Your task to perform on an android device: toggle notifications settings in the gmail app Image 0: 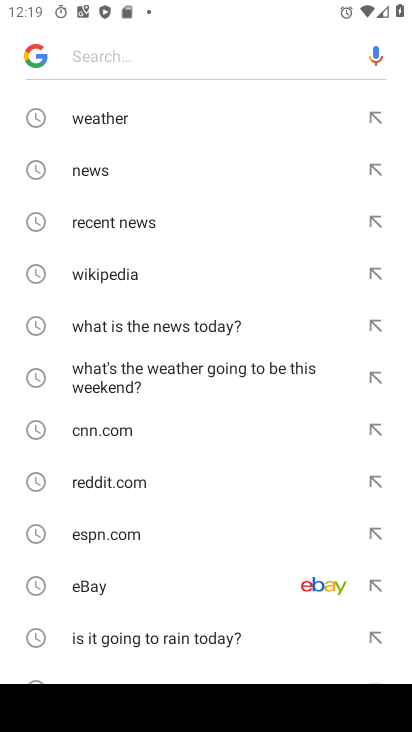
Step 0: press home button
Your task to perform on an android device: toggle notifications settings in the gmail app Image 1: 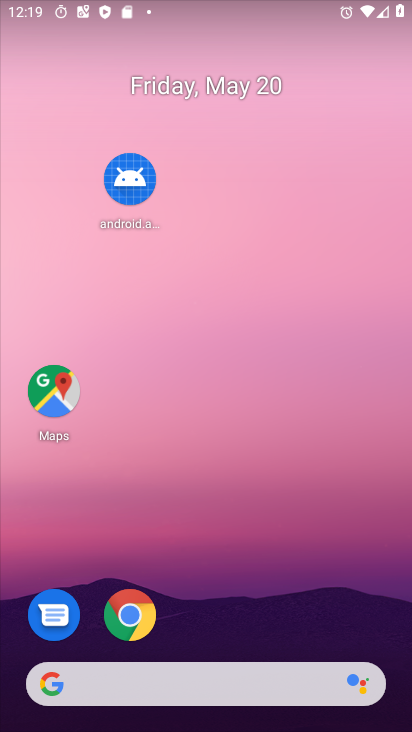
Step 1: drag from (319, 594) to (256, 198)
Your task to perform on an android device: toggle notifications settings in the gmail app Image 2: 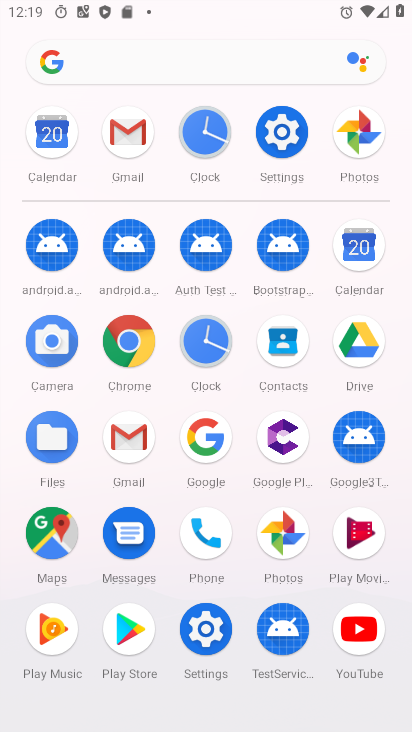
Step 2: click (131, 425)
Your task to perform on an android device: toggle notifications settings in the gmail app Image 3: 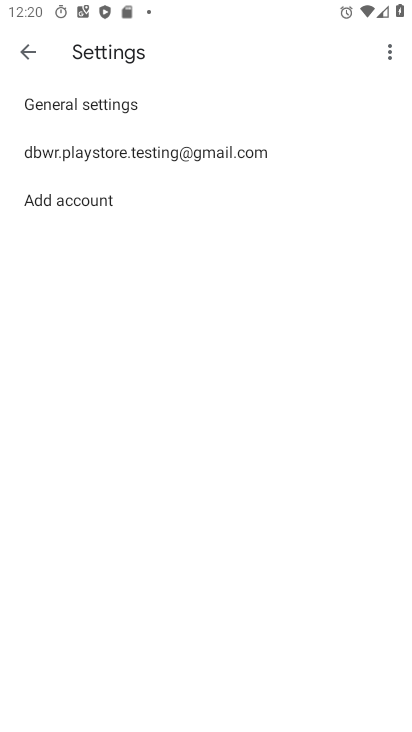
Step 3: click (106, 149)
Your task to perform on an android device: toggle notifications settings in the gmail app Image 4: 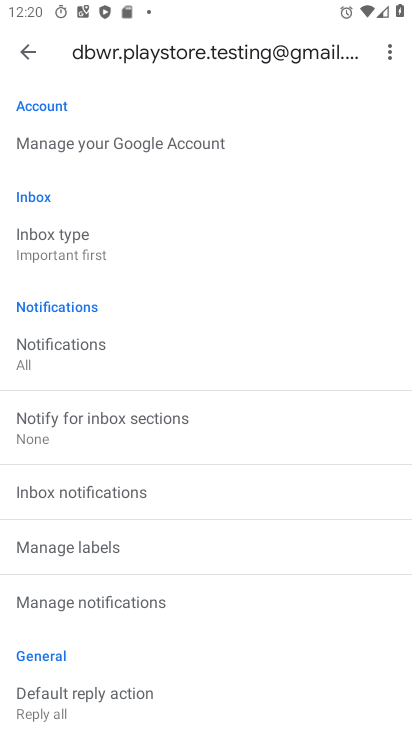
Step 4: click (154, 594)
Your task to perform on an android device: toggle notifications settings in the gmail app Image 5: 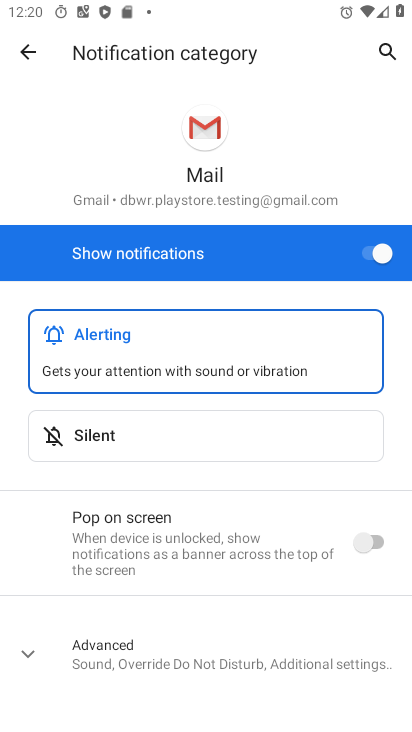
Step 5: click (366, 254)
Your task to perform on an android device: toggle notifications settings in the gmail app Image 6: 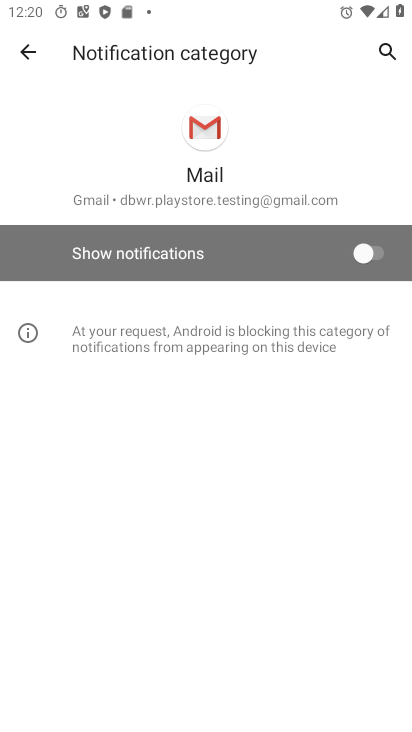
Step 6: task complete